Your task to perform on an android device: When is my next appointment? Image 0: 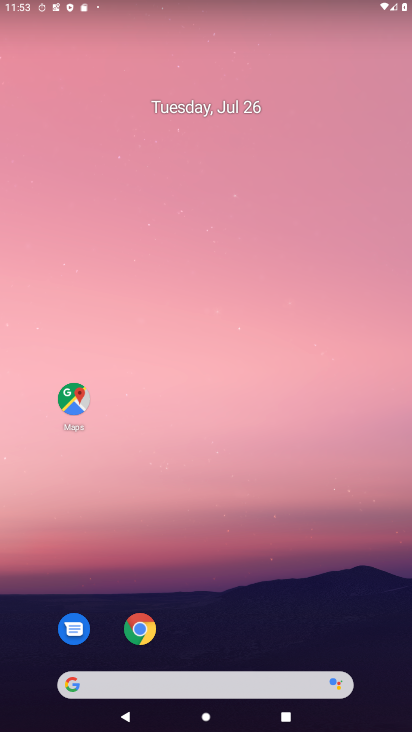
Step 0: drag from (381, 628) to (22, 47)
Your task to perform on an android device: When is my next appointment? Image 1: 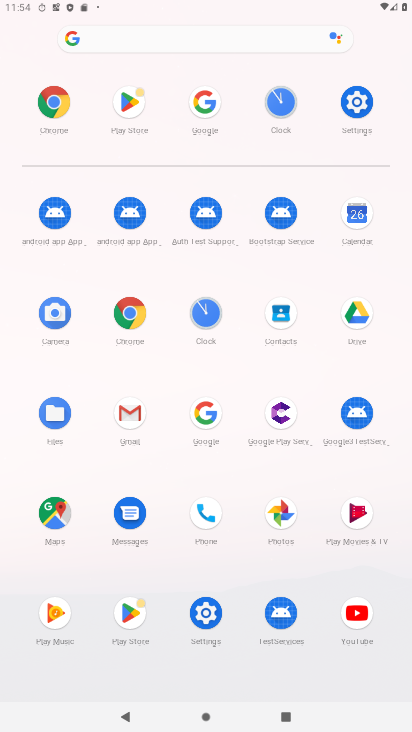
Step 1: click (361, 219)
Your task to perform on an android device: When is my next appointment? Image 2: 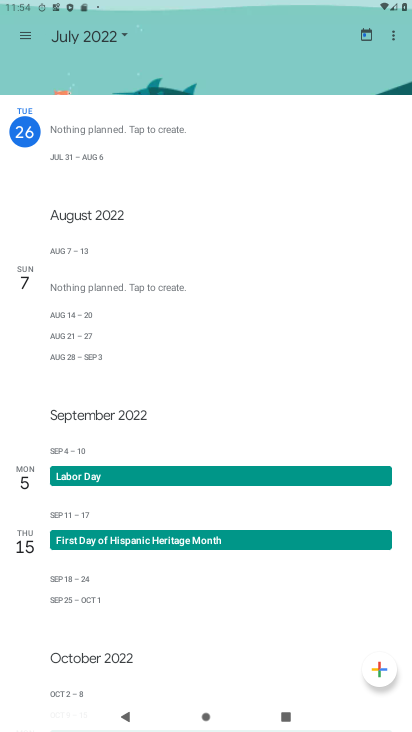
Step 2: task complete